Your task to perform on an android device: delete the emails in spam in the gmail app Image 0: 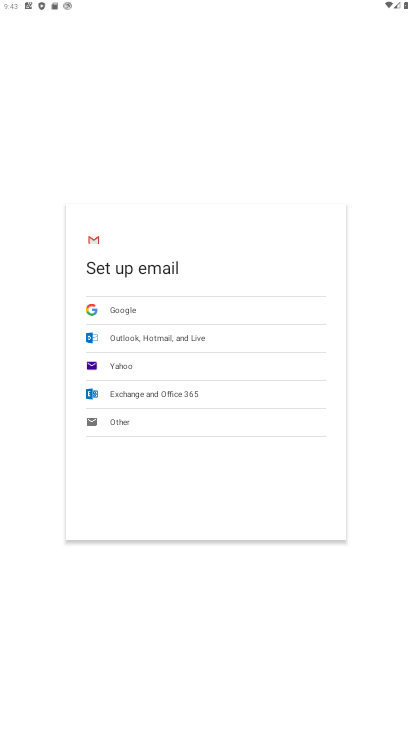
Step 0: press home button
Your task to perform on an android device: delete the emails in spam in the gmail app Image 1: 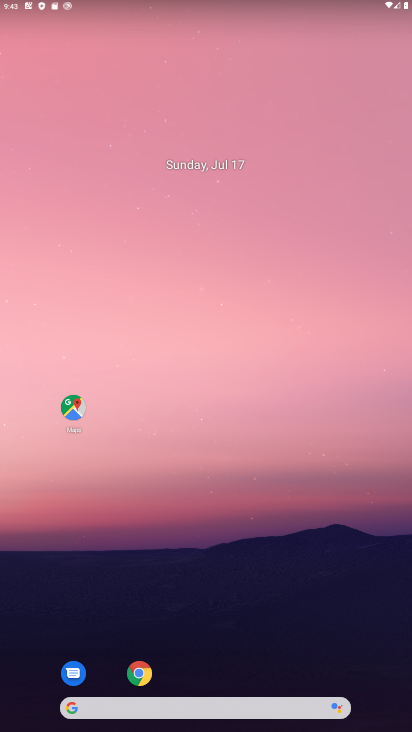
Step 1: drag from (225, 673) to (222, 65)
Your task to perform on an android device: delete the emails in spam in the gmail app Image 2: 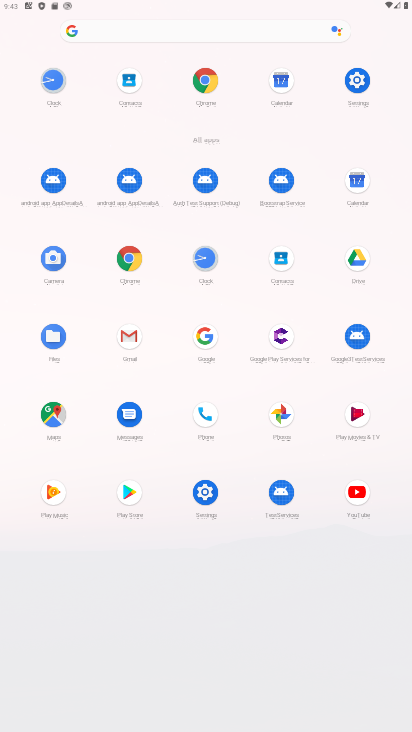
Step 2: click (130, 332)
Your task to perform on an android device: delete the emails in spam in the gmail app Image 3: 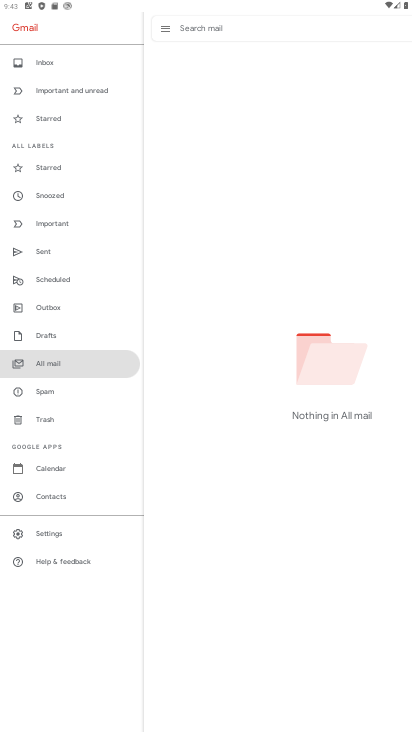
Step 3: click (46, 390)
Your task to perform on an android device: delete the emails in spam in the gmail app Image 4: 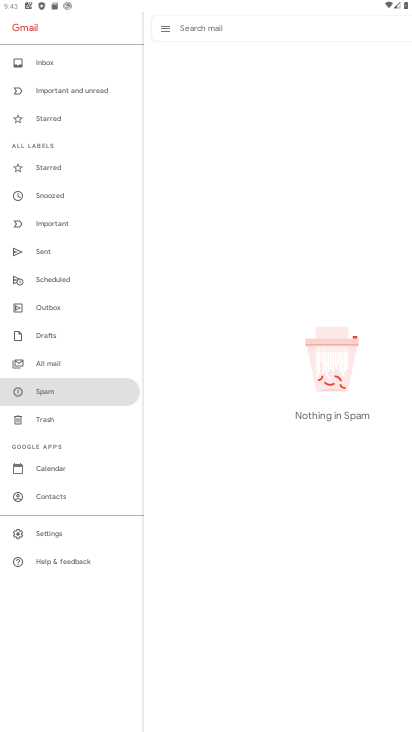
Step 4: task complete